Your task to perform on an android device: Check the settings for the Google Play Store app Image 0: 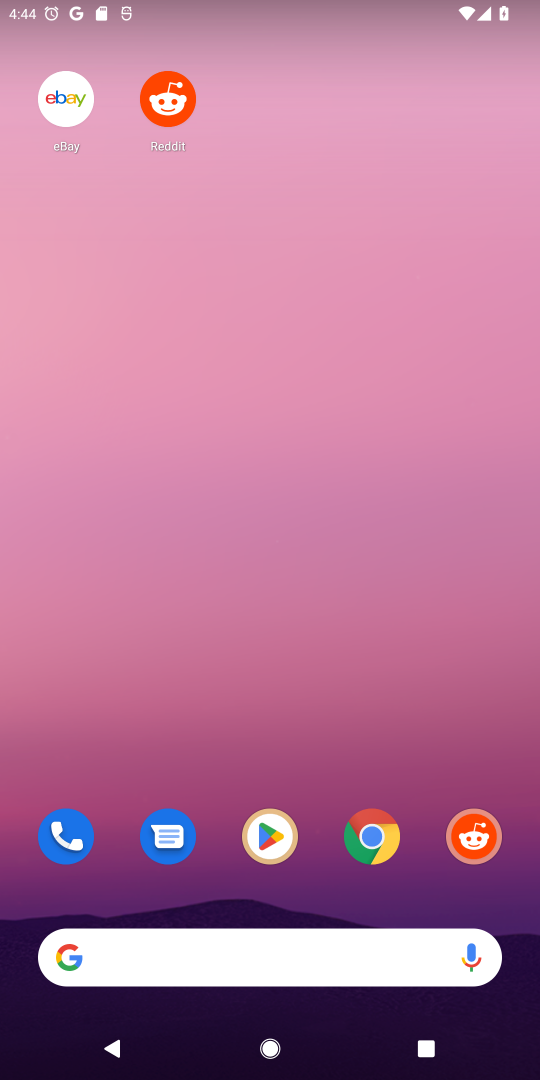
Step 0: click (173, 97)
Your task to perform on an android device: Check the settings for the Google Play Store app Image 1: 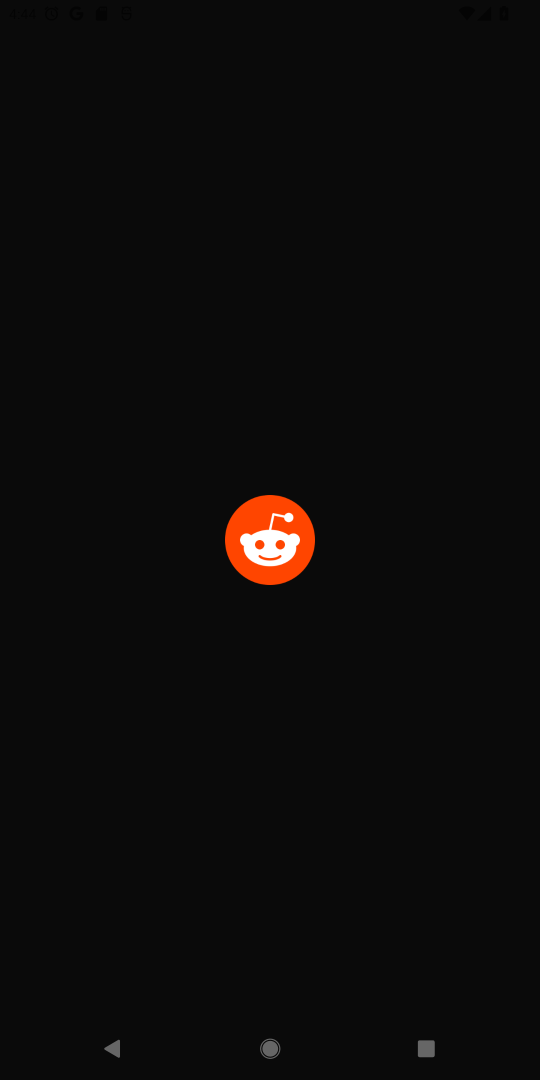
Step 1: press home button
Your task to perform on an android device: Check the settings for the Google Play Store app Image 2: 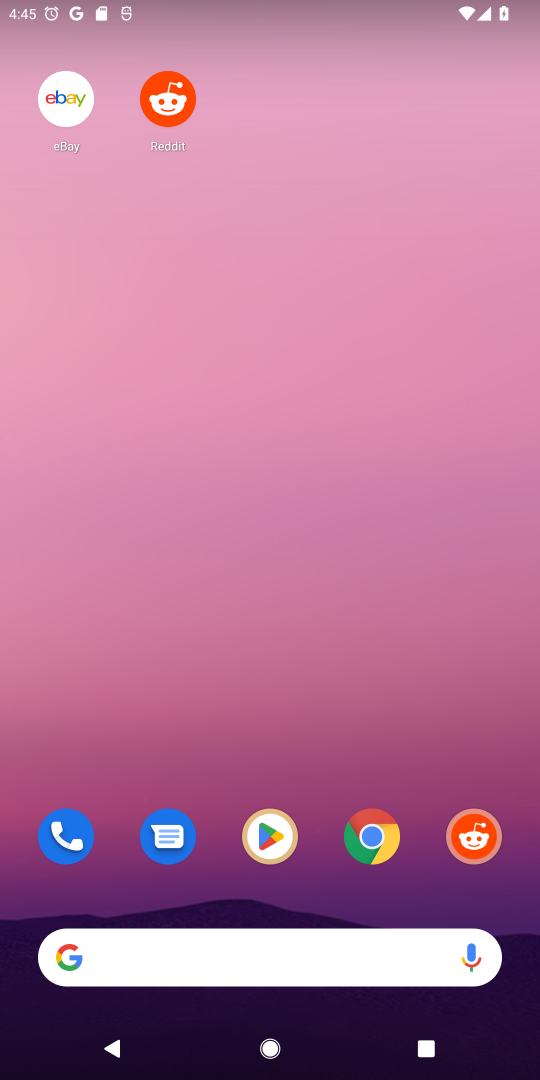
Step 2: click (339, 890)
Your task to perform on an android device: Check the settings for the Google Play Store app Image 3: 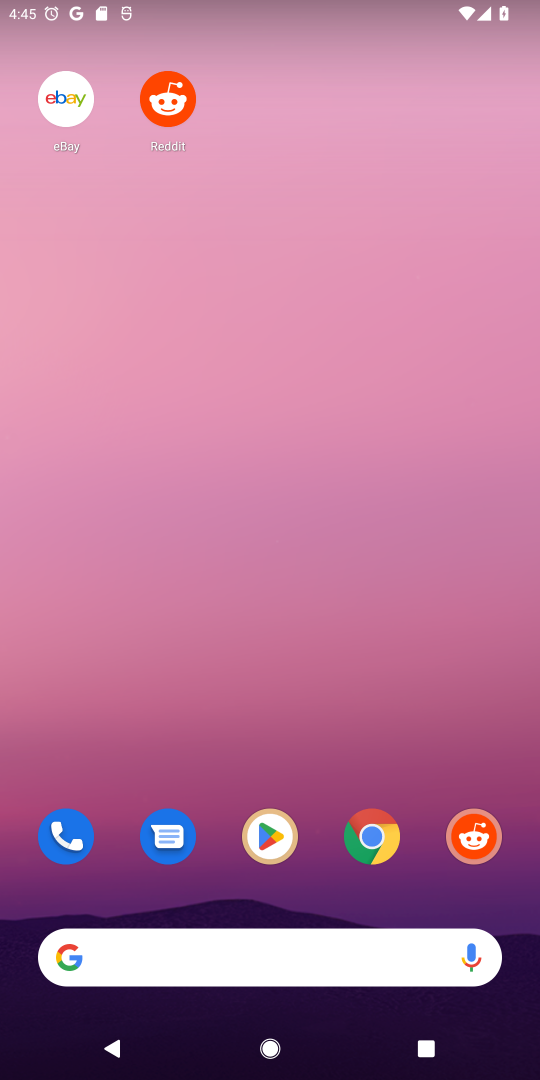
Step 3: click (258, 826)
Your task to perform on an android device: Check the settings for the Google Play Store app Image 4: 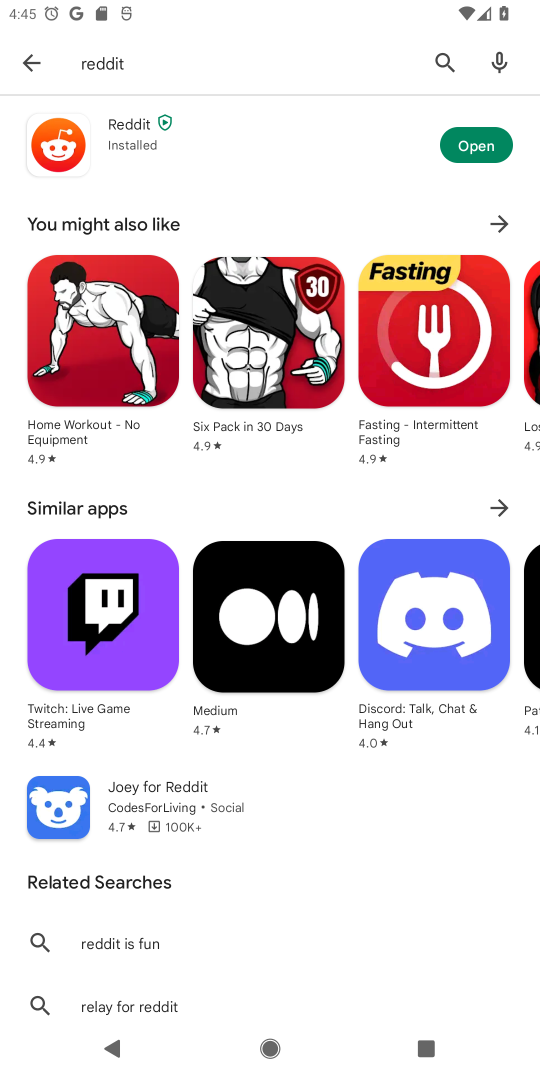
Step 4: click (442, 65)
Your task to perform on an android device: Check the settings for the Google Play Store app Image 5: 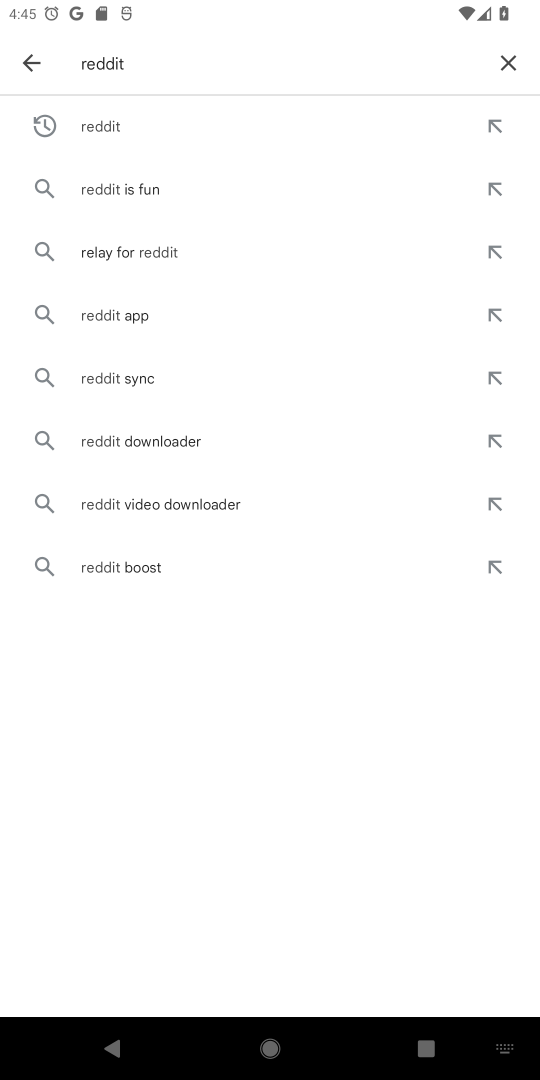
Step 5: click (512, 66)
Your task to perform on an android device: Check the settings for the Google Play Store app Image 6: 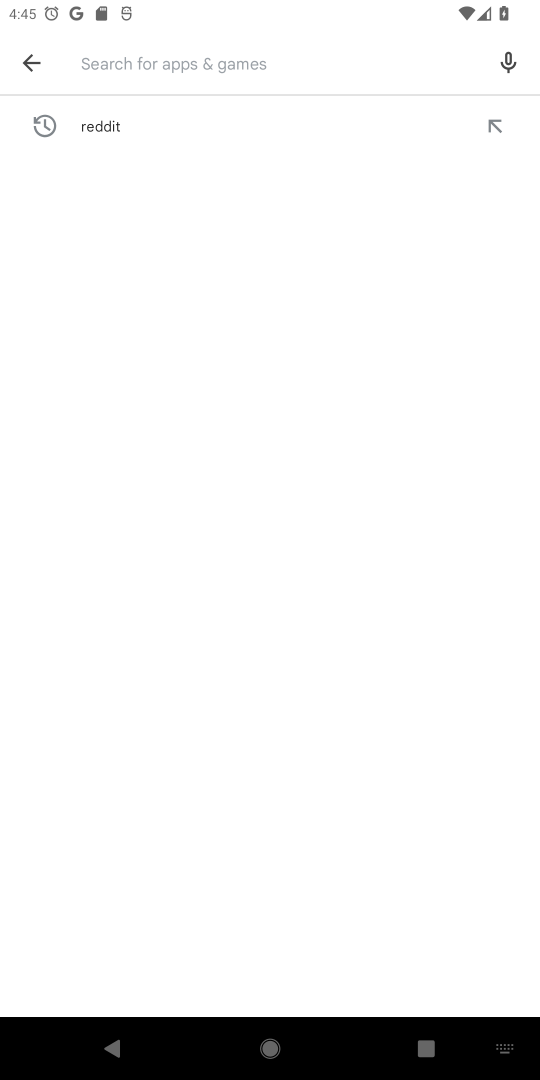
Step 6: click (217, 119)
Your task to perform on an android device: Check the settings for the Google Play Store app Image 7: 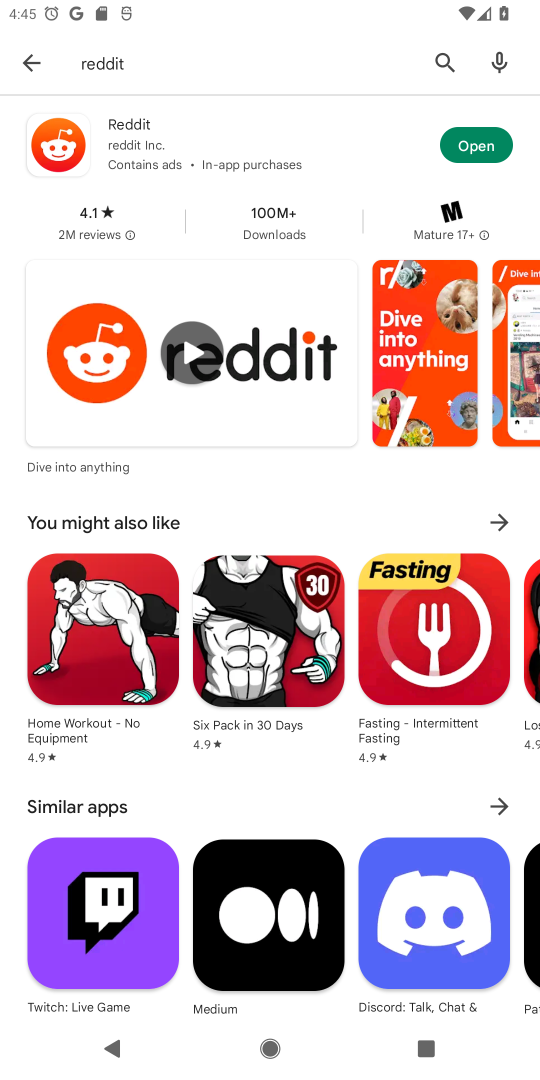
Step 7: click (33, 40)
Your task to perform on an android device: Check the settings for the Google Play Store app Image 8: 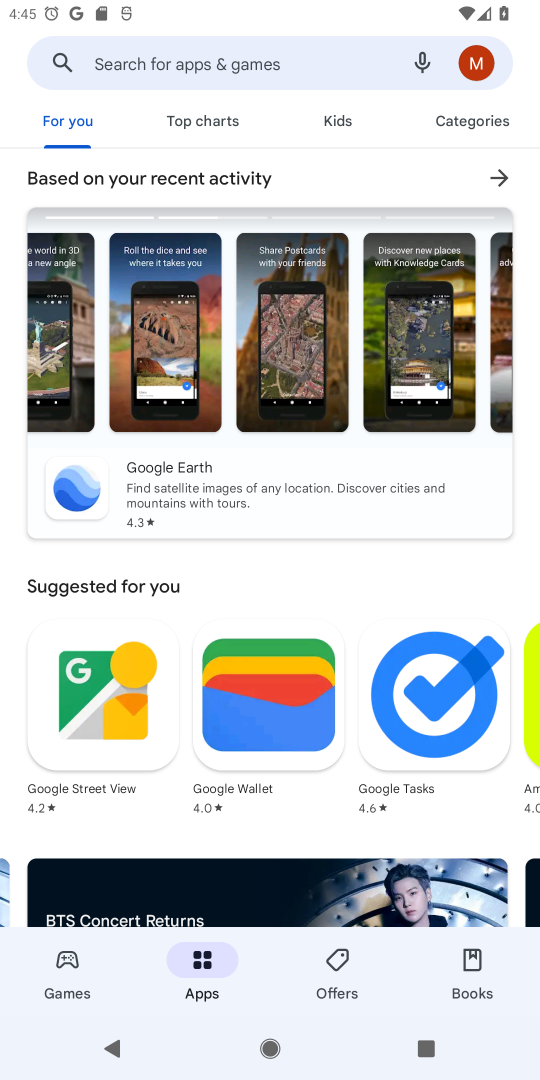
Step 8: task complete